Your task to perform on an android device: visit the assistant section in the google photos Image 0: 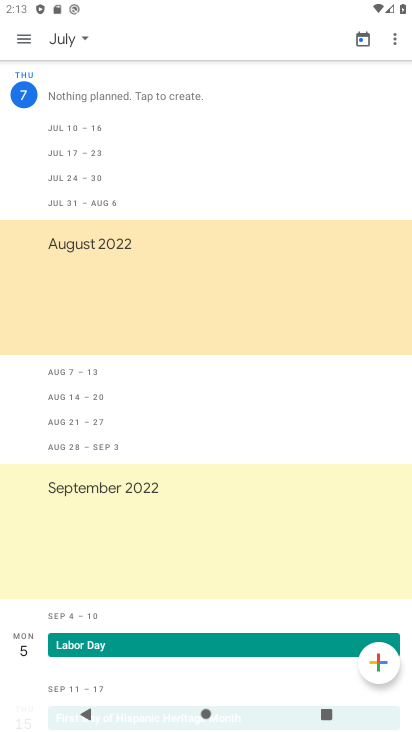
Step 0: press home button
Your task to perform on an android device: visit the assistant section in the google photos Image 1: 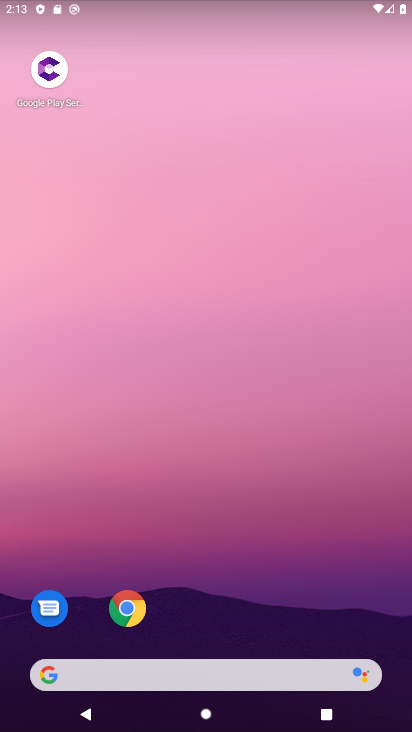
Step 1: drag from (372, 625) to (333, 162)
Your task to perform on an android device: visit the assistant section in the google photos Image 2: 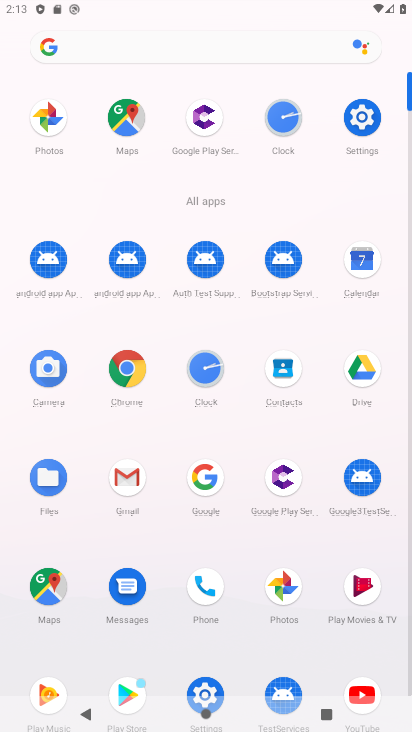
Step 2: click (282, 586)
Your task to perform on an android device: visit the assistant section in the google photos Image 3: 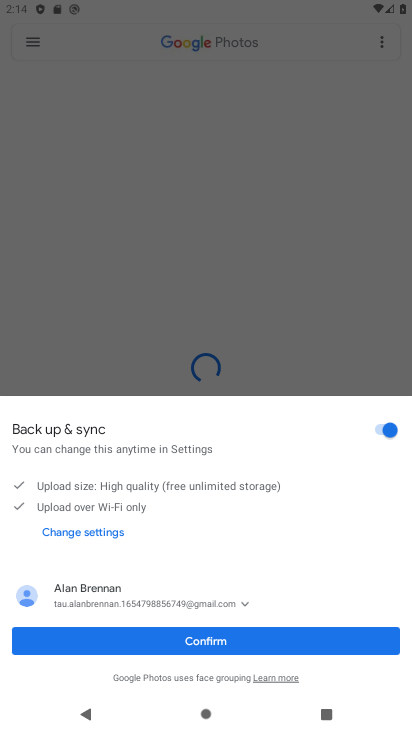
Step 3: click (197, 639)
Your task to perform on an android device: visit the assistant section in the google photos Image 4: 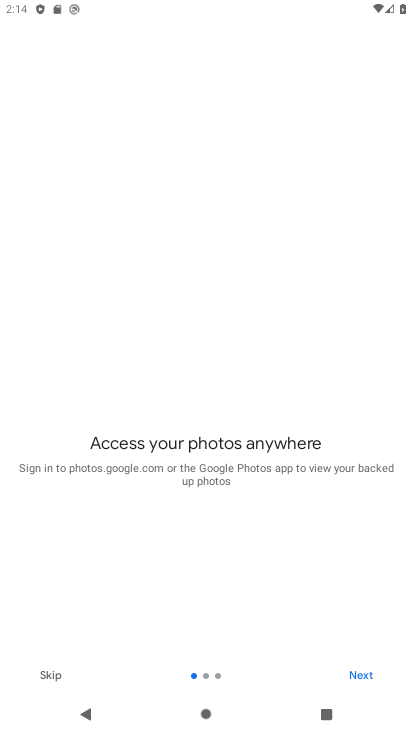
Step 4: click (47, 678)
Your task to perform on an android device: visit the assistant section in the google photos Image 5: 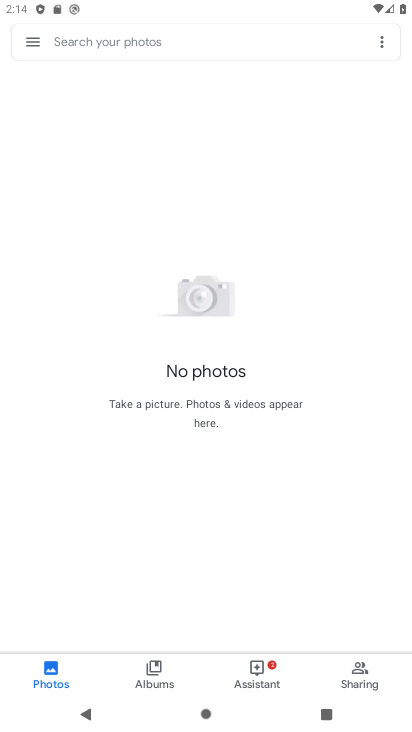
Step 5: click (252, 670)
Your task to perform on an android device: visit the assistant section in the google photos Image 6: 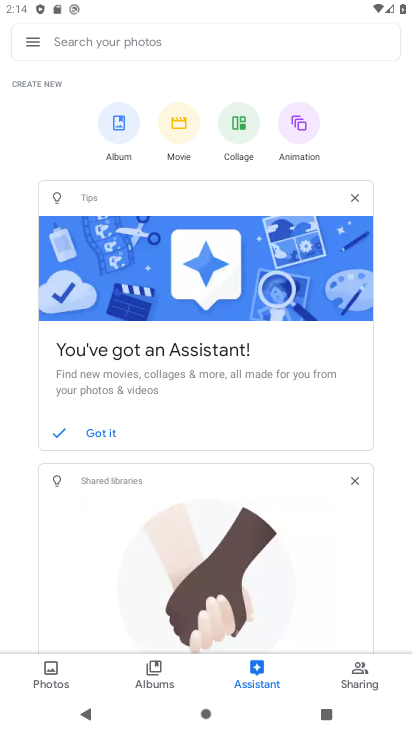
Step 6: task complete